Your task to perform on an android device: Search for Italian restaurants on Maps Image 0: 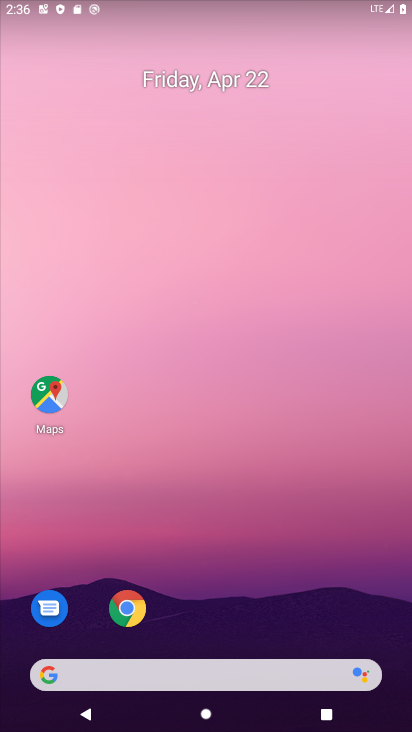
Step 0: drag from (286, 678) to (285, 218)
Your task to perform on an android device: Search for Italian restaurants on Maps Image 1: 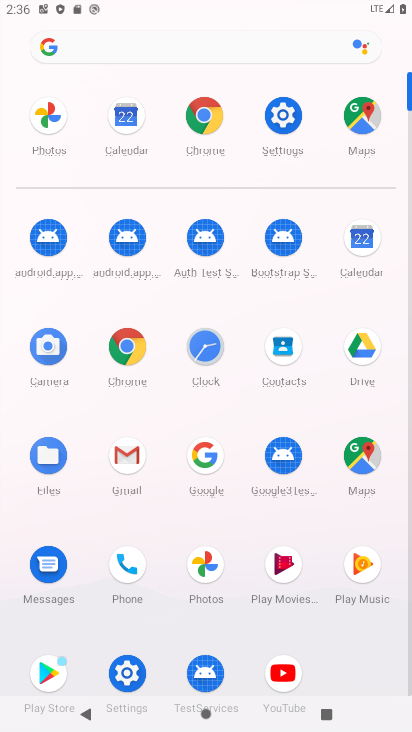
Step 1: click (372, 107)
Your task to perform on an android device: Search for Italian restaurants on Maps Image 2: 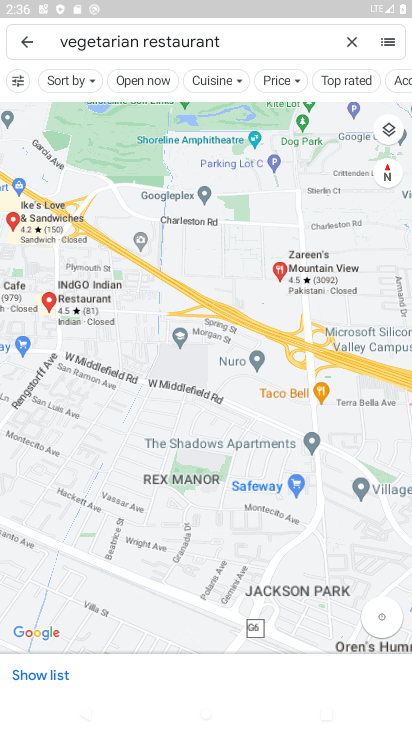
Step 2: click (347, 42)
Your task to perform on an android device: Search for Italian restaurants on Maps Image 3: 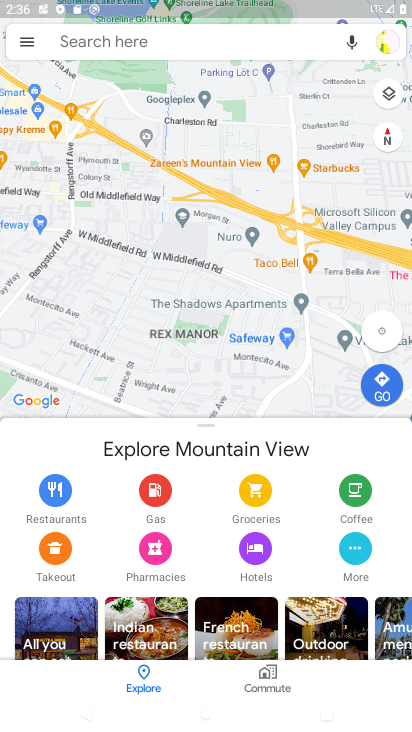
Step 3: click (146, 42)
Your task to perform on an android device: Search for Italian restaurants on Maps Image 4: 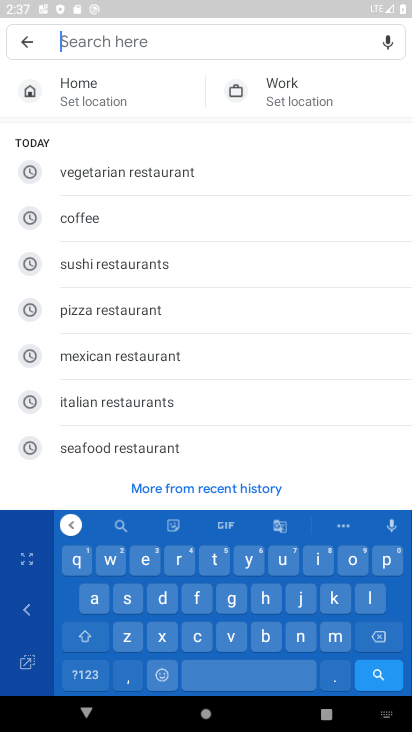
Step 4: click (111, 388)
Your task to perform on an android device: Search for Italian restaurants on Maps Image 5: 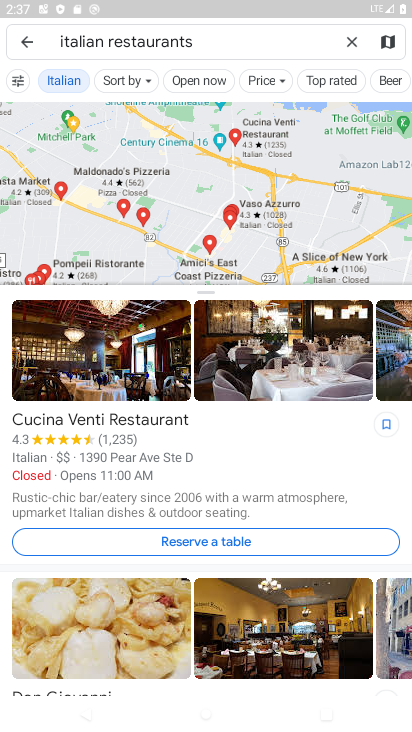
Step 5: click (192, 216)
Your task to perform on an android device: Search for Italian restaurants on Maps Image 6: 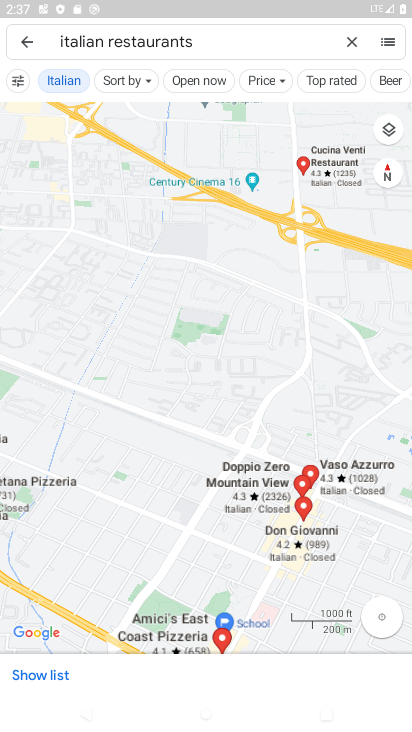
Step 6: task complete